Your task to perform on an android device: make emails show in primary in the gmail app Image 0: 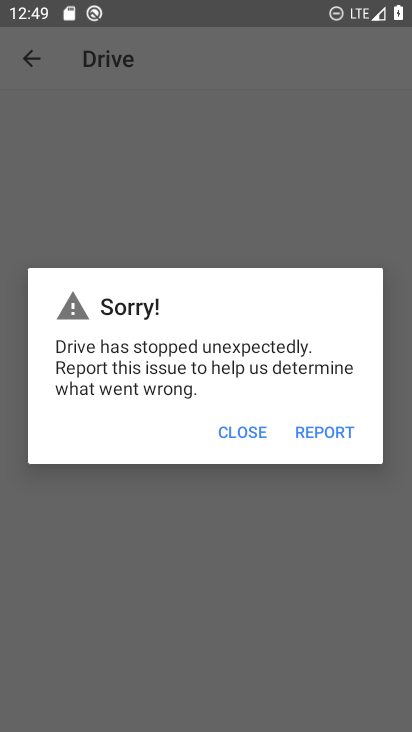
Step 0: press home button
Your task to perform on an android device: make emails show in primary in the gmail app Image 1: 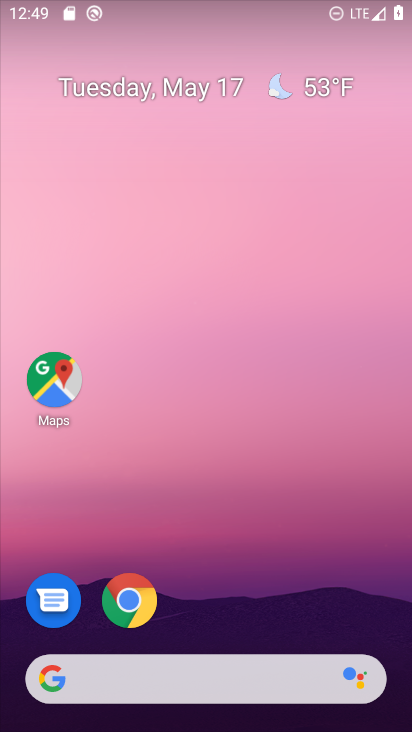
Step 1: click (161, 134)
Your task to perform on an android device: make emails show in primary in the gmail app Image 2: 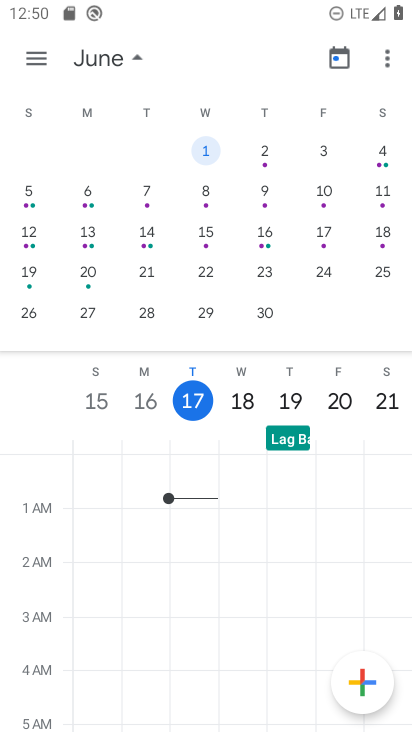
Step 2: press home button
Your task to perform on an android device: make emails show in primary in the gmail app Image 3: 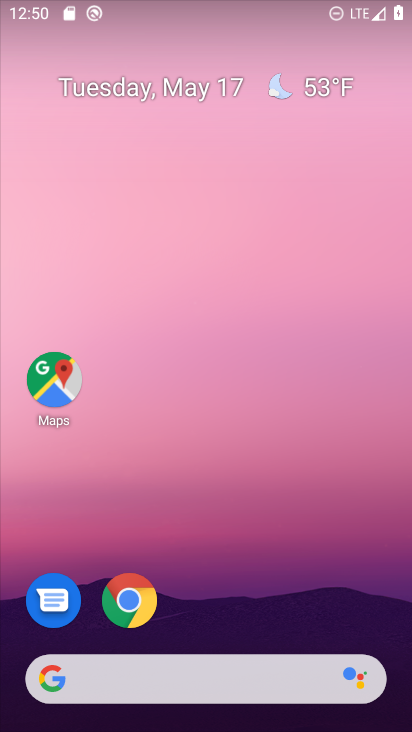
Step 3: drag from (221, 596) to (176, 2)
Your task to perform on an android device: make emails show in primary in the gmail app Image 4: 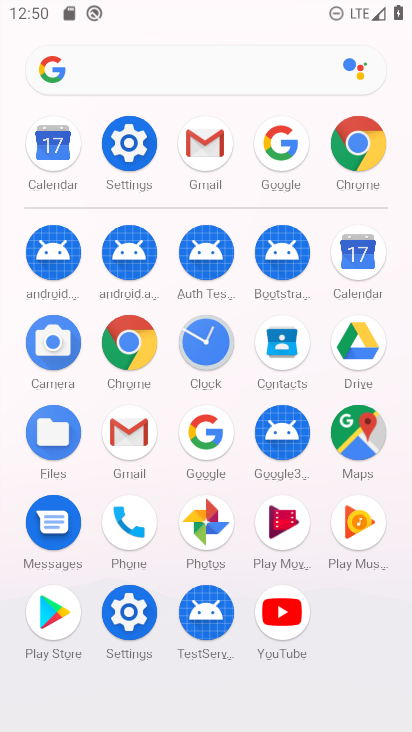
Step 4: click (228, 179)
Your task to perform on an android device: make emails show in primary in the gmail app Image 5: 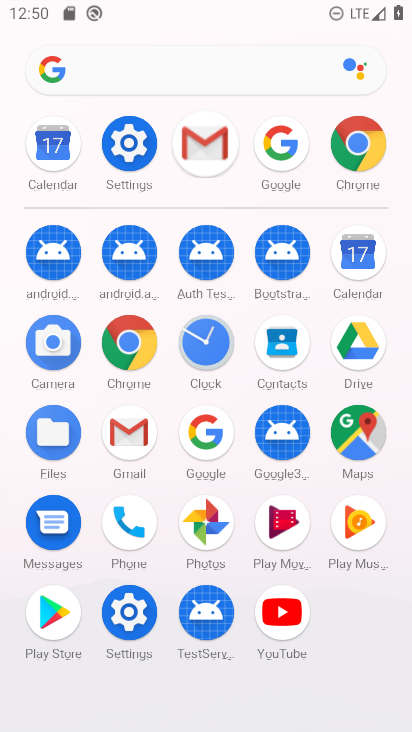
Step 5: click (214, 155)
Your task to perform on an android device: make emails show in primary in the gmail app Image 6: 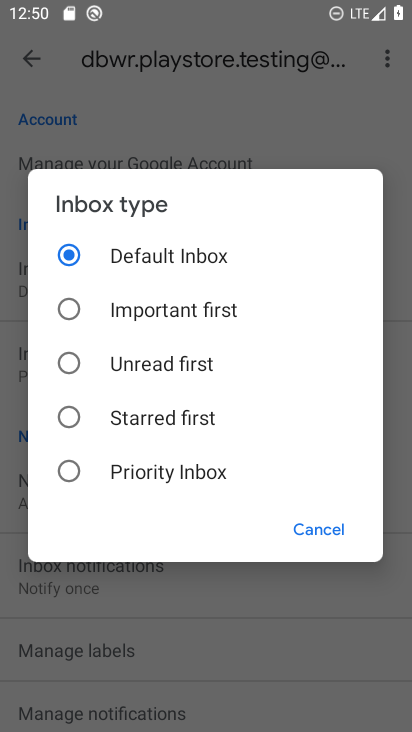
Step 6: press back button
Your task to perform on an android device: make emails show in primary in the gmail app Image 7: 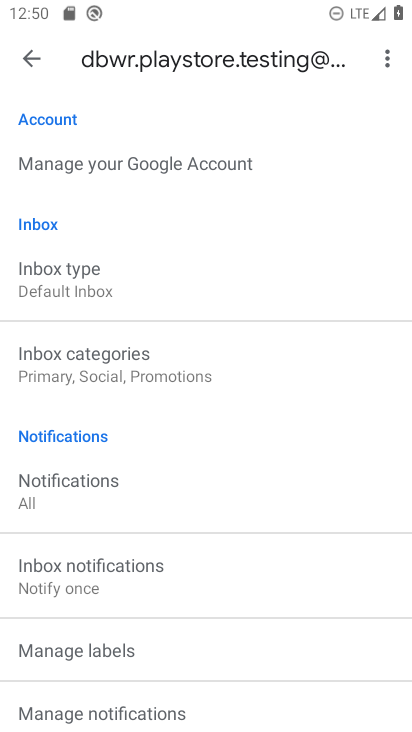
Step 7: click (92, 386)
Your task to perform on an android device: make emails show in primary in the gmail app Image 8: 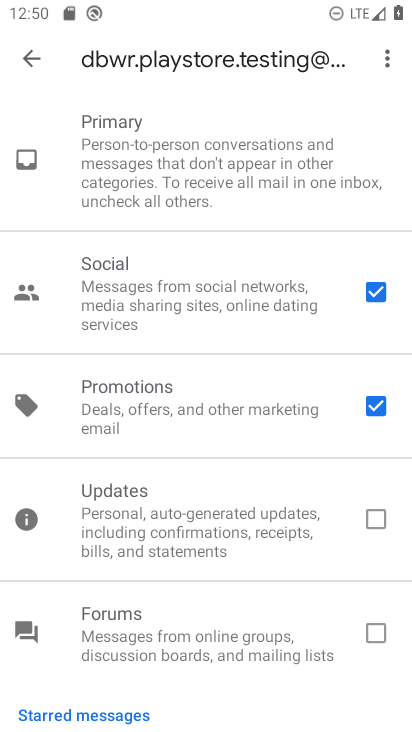
Step 8: click (381, 409)
Your task to perform on an android device: make emails show in primary in the gmail app Image 9: 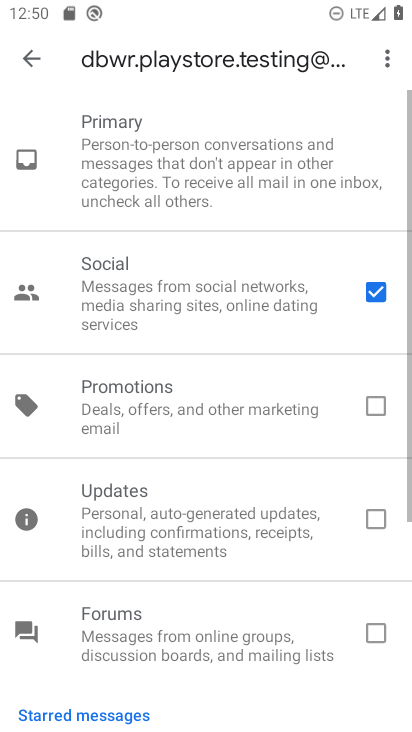
Step 9: click (394, 299)
Your task to perform on an android device: make emails show in primary in the gmail app Image 10: 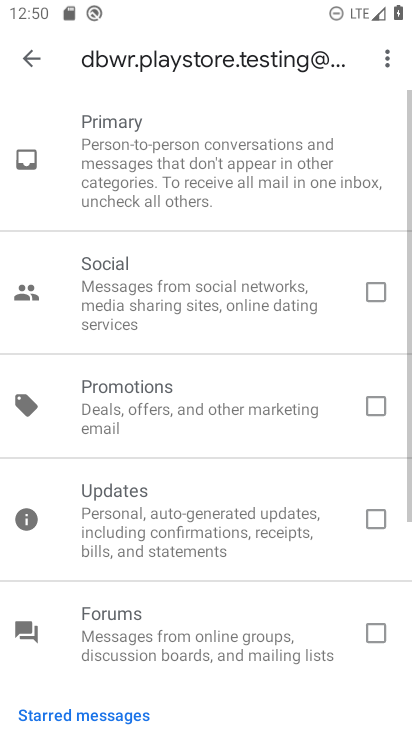
Step 10: task complete